Your task to perform on an android device: Open the phone app and click the voicemail tab. Image 0: 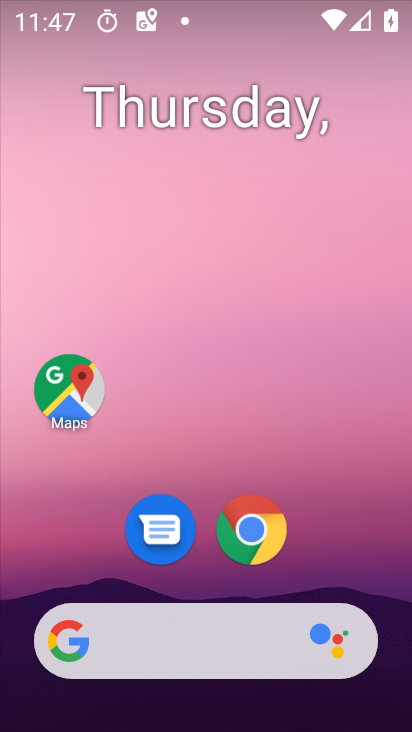
Step 0: drag from (240, 549) to (275, 254)
Your task to perform on an android device: Open the phone app and click the voicemail tab. Image 1: 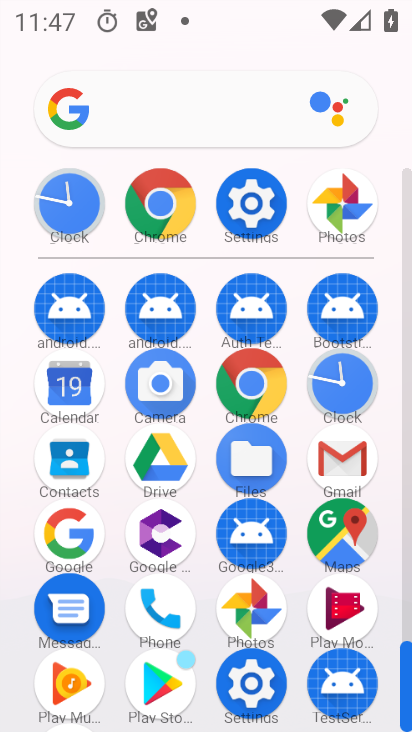
Step 1: drag from (273, 579) to (334, 195)
Your task to perform on an android device: Open the phone app and click the voicemail tab. Image 2: 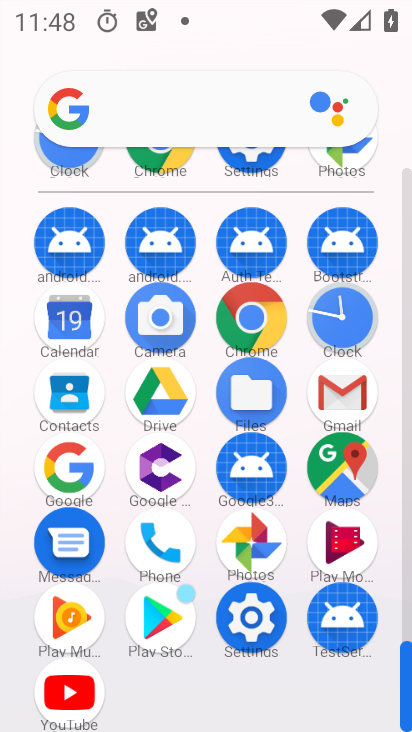
Step 2: click (171, 552)
Your task to perform on an android device: Open the phone app and click the voicemail tab. Image 3: 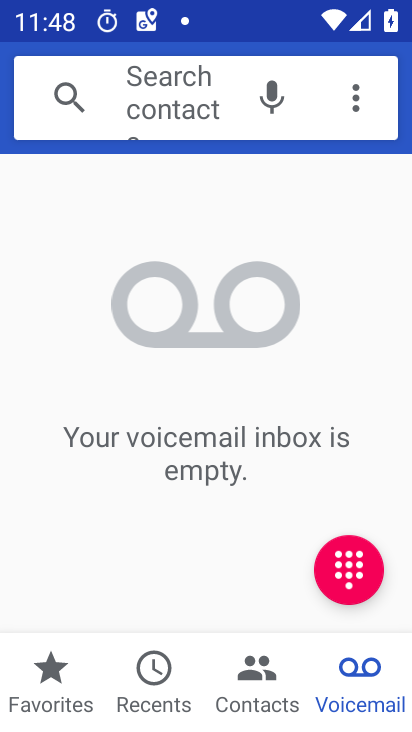
Step 3: task complete